Your task to perform on an android device: Open the calendar and show me this week's events? Image 0: 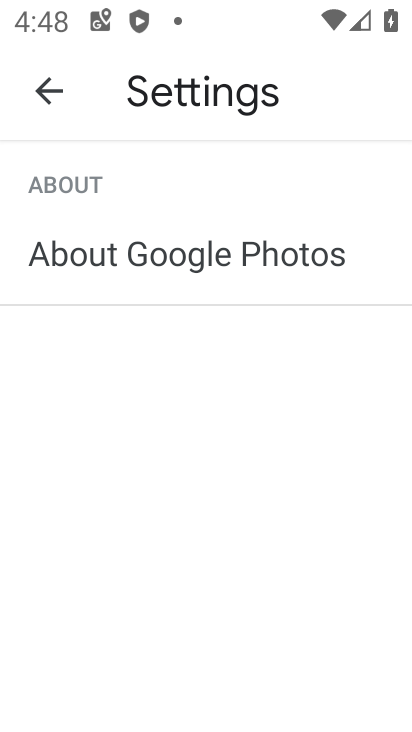
Step 0: press home button
Your task to perform on an android device: Open the calendar and show me this week's events? Image 1: 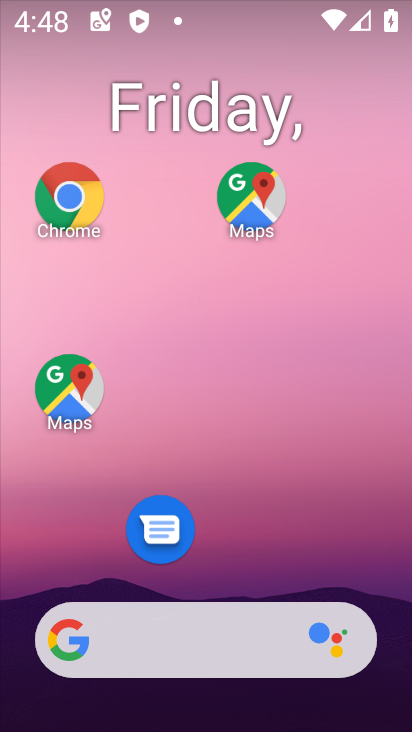
Step 1: drag from (227, 552) to (252, 55)
Your task to perform on an android device: Open the calendar and show me this week's events? Image 2: 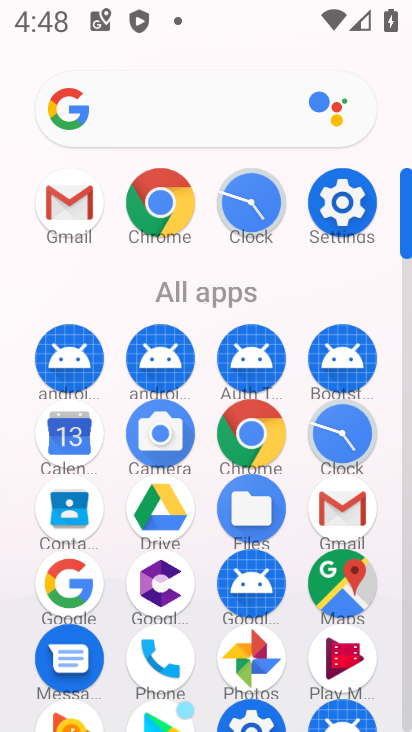
Step 2: click (62, 446)
Your task to perform on an android device: Open the calendar and show me this week's events? Image 3: 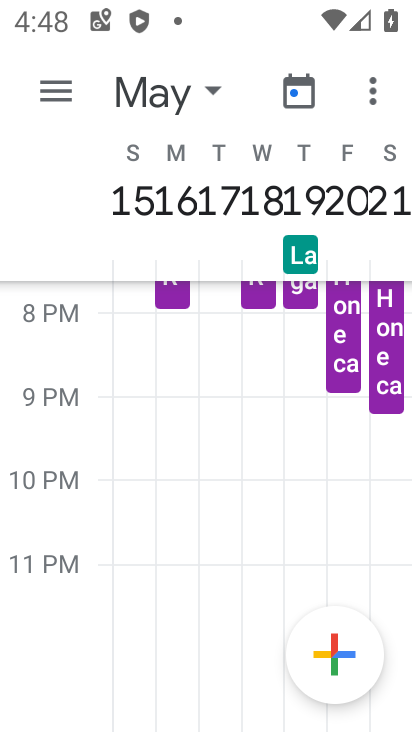
Step 3: click (162, 101)
Your task to perform on an android device: Open the calendar and show me this week's events? Image 4: 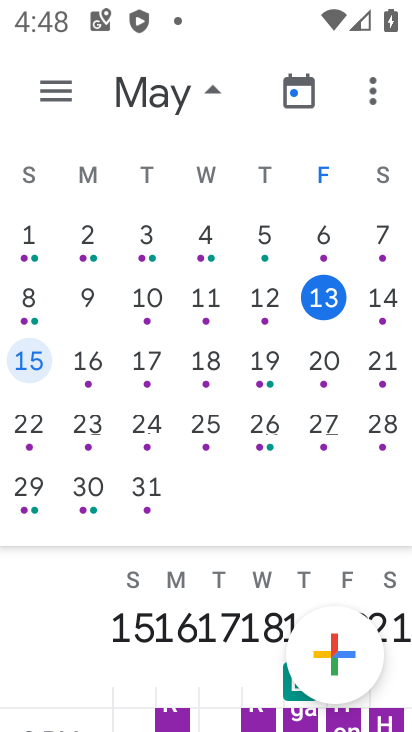
Step 4: click (25, 308)
Your task to perform on an android device: Open the calendar and show me this week's events? Image 5: 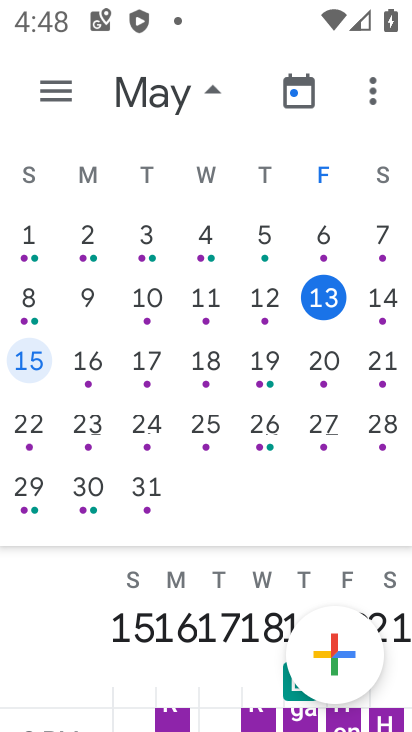
Step 5: click (26, 308)
Your task to perform on an android device: Open the calendar and show me this week's events? Image 6: 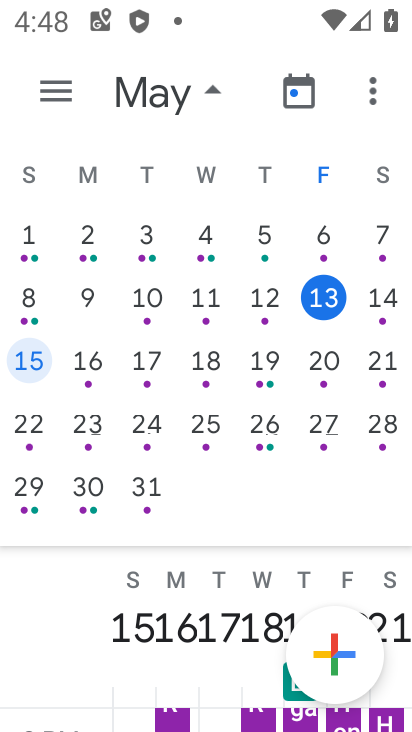
Step 6: click (33, 303)
Your task to perform on an android device: Open the calendar and show me this week's events? Image 7: 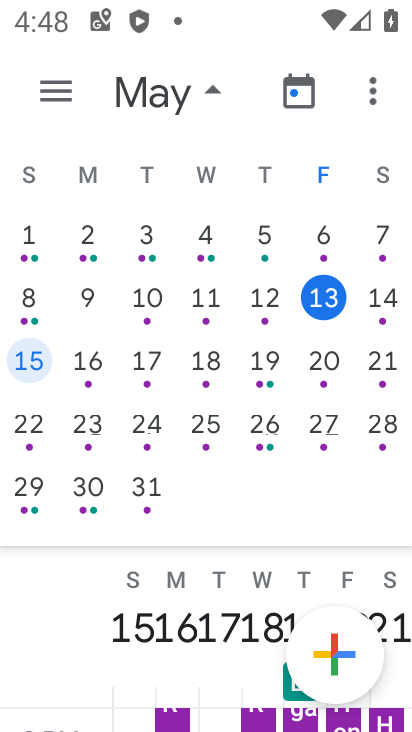
Step 7: click (33, 303)
Your task to perform on an android device: Open the calendar and show me this week's events? Image 8: 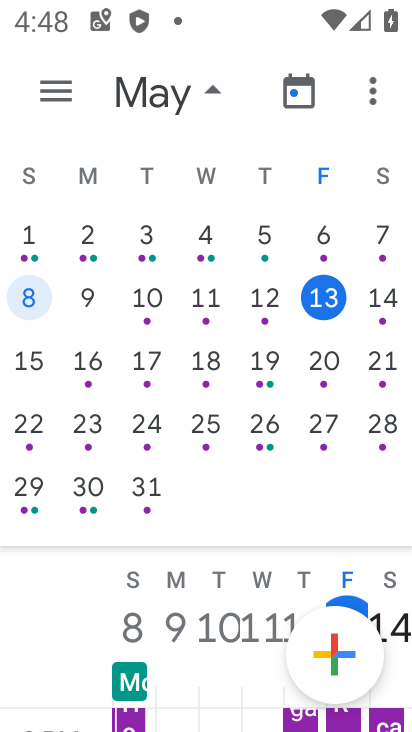
Step 8: task complete